Your task to perform on an android device: toggle improve location accuracy Image 0: 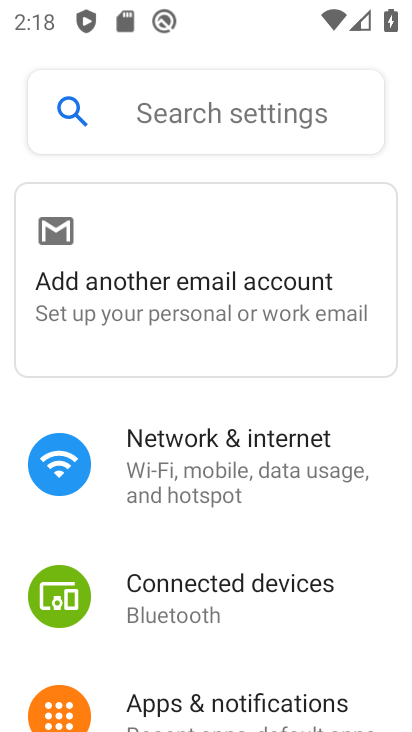
Step 0: press home button
Your task to perform on an android device: toggle improve location accuracy Image 1: 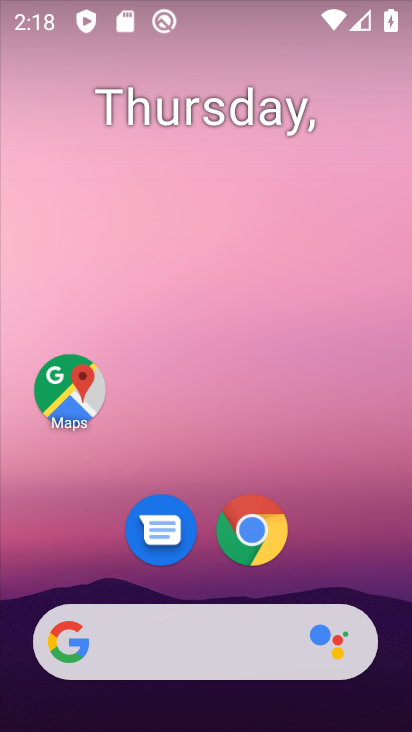
Step 1: drag from (330, 540) to (374, 52)
Your task to perform on an android device: toggle improve location accuracy Image 2: 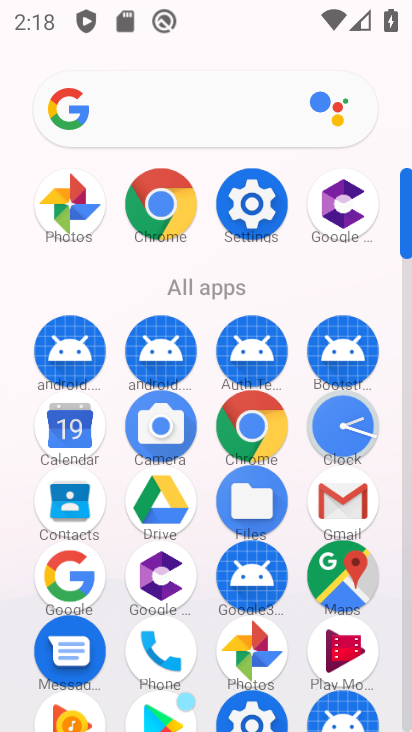
Step 2: click (273, 203)
Your task to perform on an android device: toggle improve location accuracy Image 3: 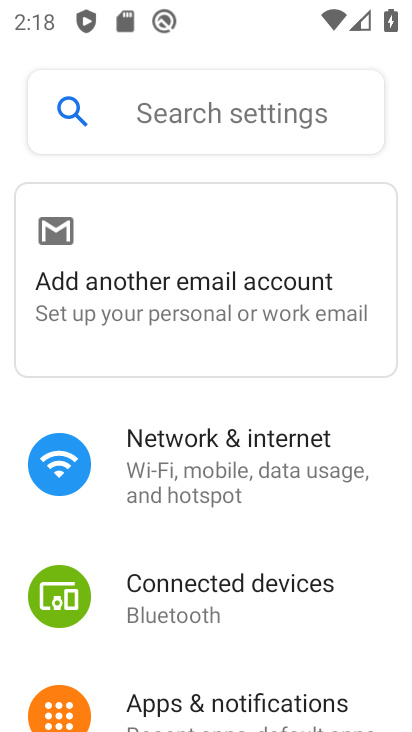
Step 3: click (214, 91)
Your task to perform on an android device: toggle improve location accuracy Image 4: 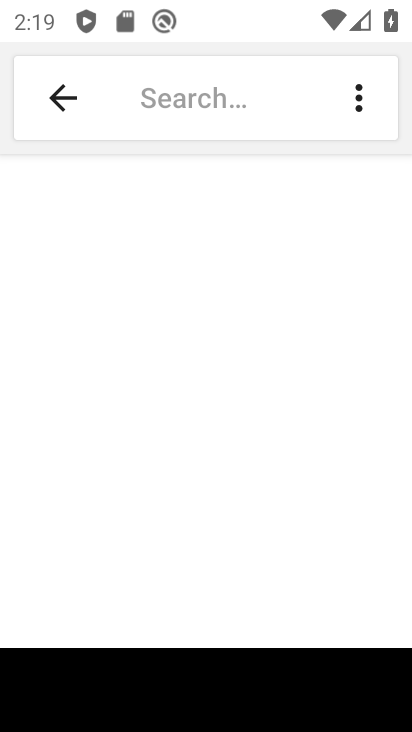
Step 4: click (66, 93)
Your task to perform on an android device: toggle improve location accuracy Image 5: 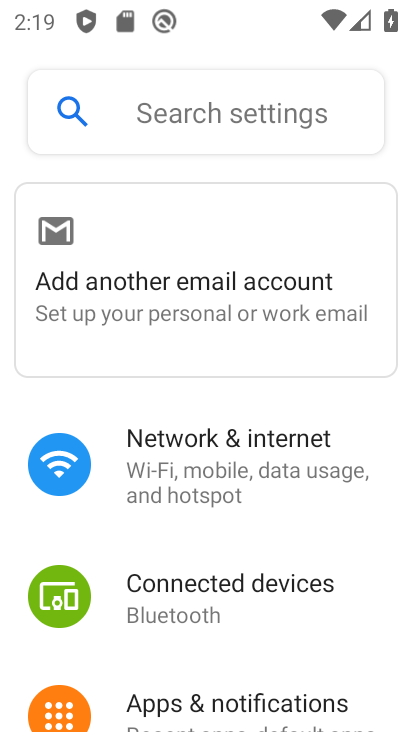
Step 5: drag from (209, 566) to (275, 74)
Your task to perform on an android device: toggle improve location accuracy Image 6: 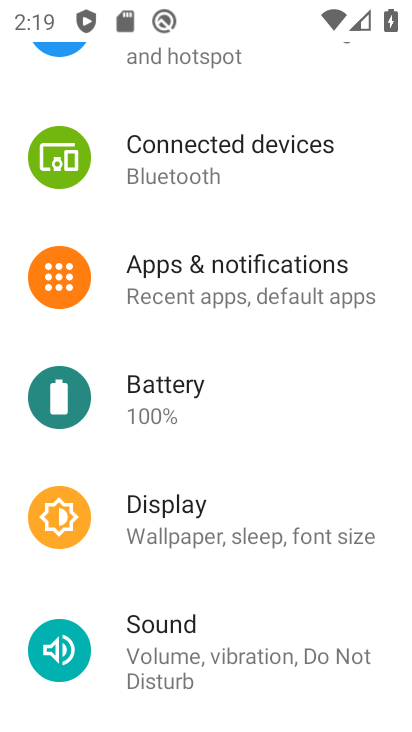
Step 6: drag from (204, 672) to (281, 124)
Your task to perform on an android device: toggle improve location accuracy Image 7: 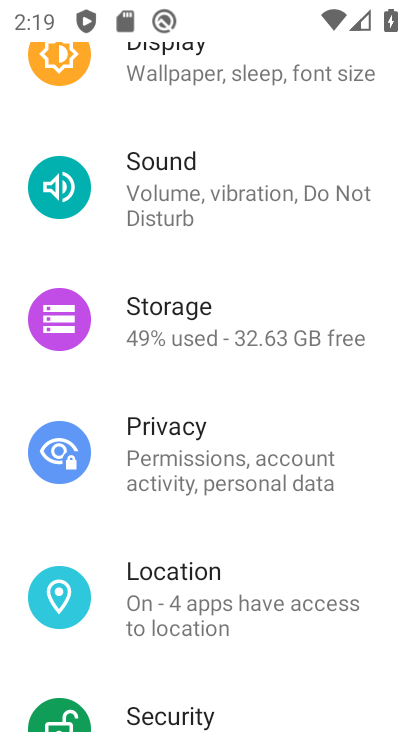
Step 7: click (197, 579)
Your task to perform on an android device: toggle improve location accuracy Image 8: 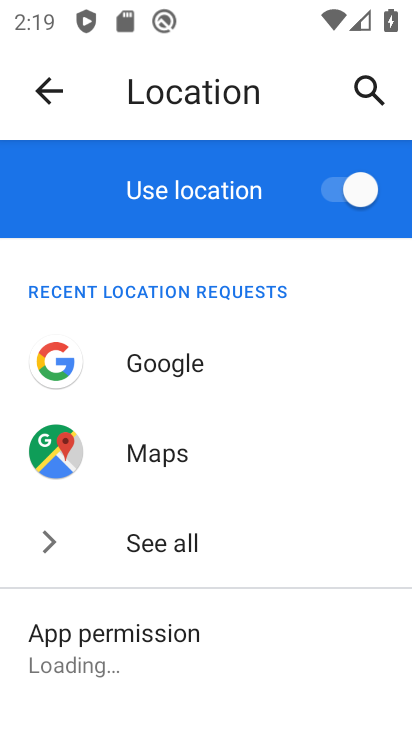
Step 8: drag from (148, 693) to (270, 192)
Your task to perform on an android device: toggle improve location accuracy Image 9: 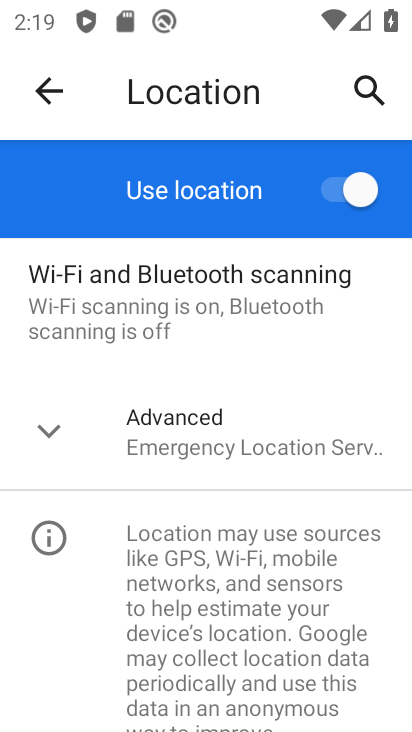
Step 9: click (186, 443)
Your task to perform on an android device: toggle improve location accuracy Image 10: 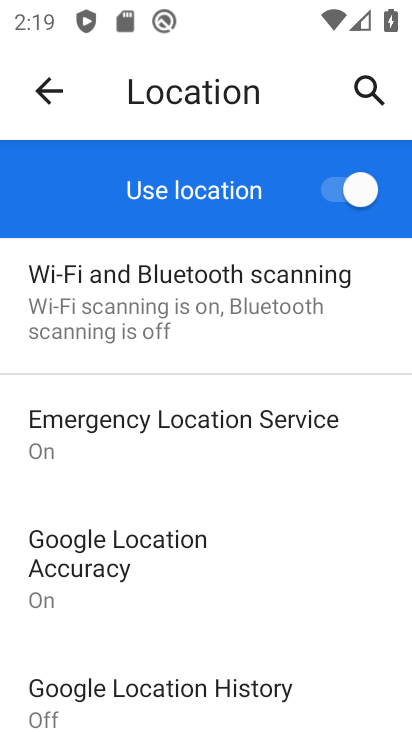
Step 10: click (166, 569)
Your task to perform on an android device: toggle improve location accuracy Image 11: 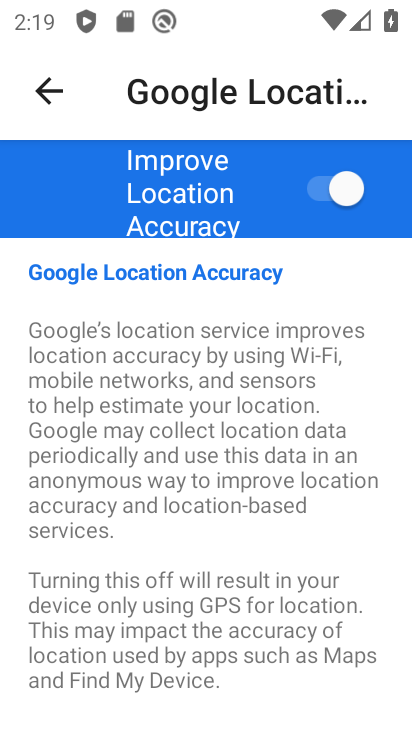
Step 11: click (309, 173)
Your task to perform on an android device: toggle improve location accuracy Image 12: 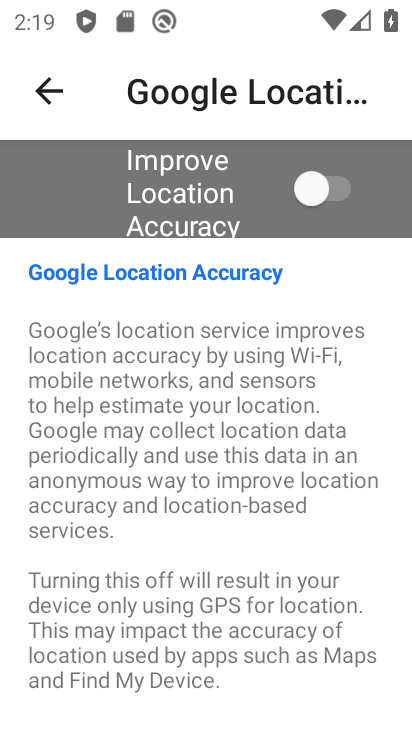
Step 12: task complete